Your task to perform on an android device: open a bookmark in the chrome app Image 0: 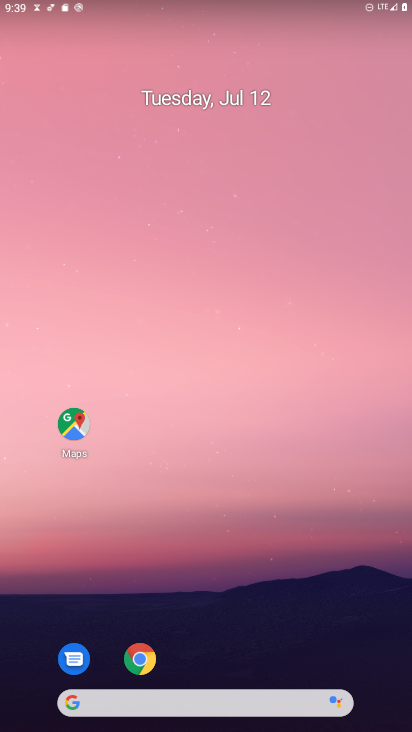
Step 0: click (140, 659)
Your task to perform on an android device: open a bookmark in the chrome app Image 1: 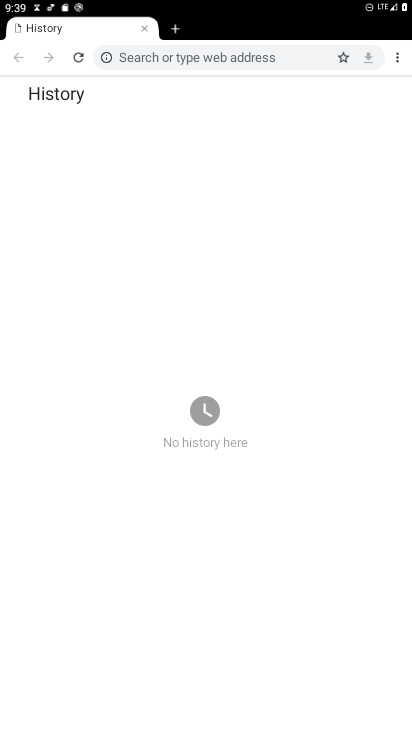
Step 1: click (397, 58)
Your task to perform on an android device: open a bookmark in the chrome app Image 2: 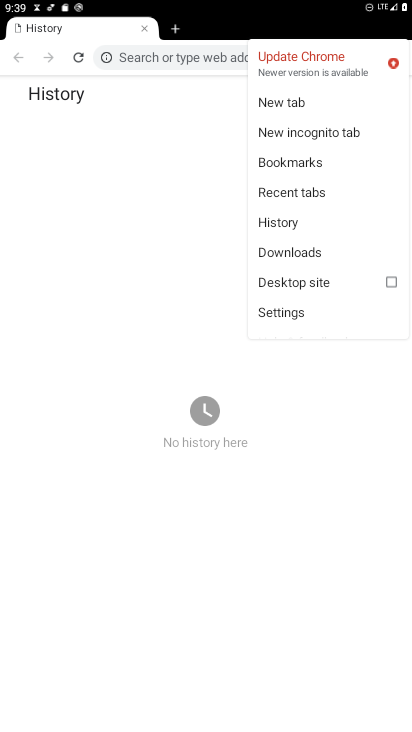
Step 2: click (312, 164)
Your task to perform on an android device: open a bookmark in the chrome app Image 3: 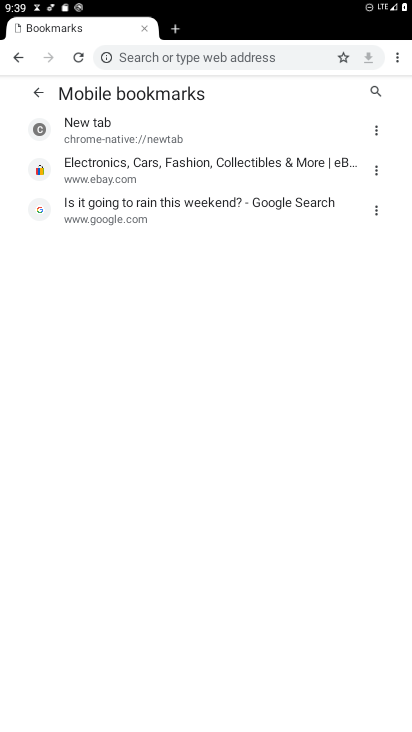
Step 3: task complete